Your task to perform on an android device: Open Youtube and go to the subscriptions tab Image 0: 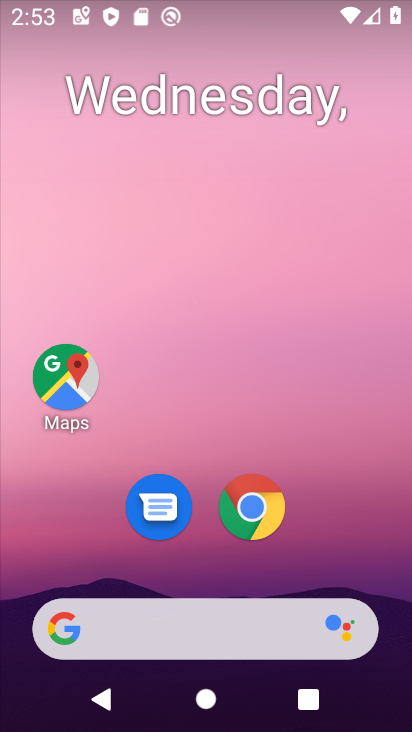
Step 0: drag from (344, 521) to (309, 218)
Your task to perform on an android device: Open Youtube and go to the subscriptions tab Image 1: 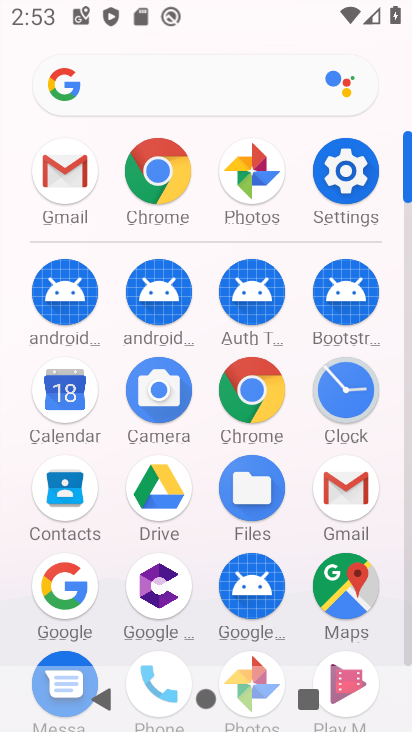
Step 1: drag from (303, 587) to (309, 123)
Your task to perform on an android device: Open Youtube and go to the subscriptions tab Image 2: 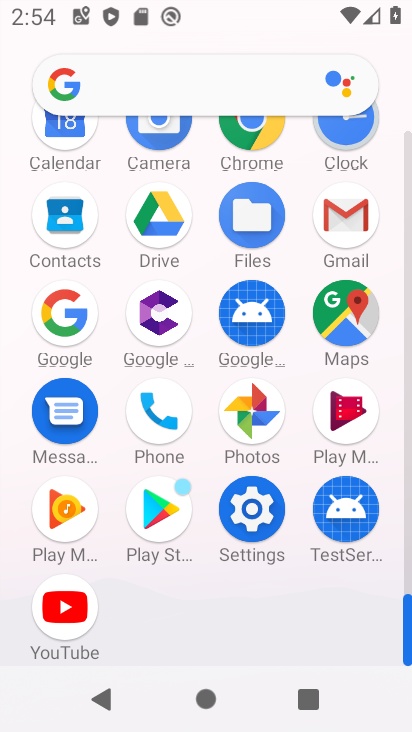
Step 2: click (68, 602)
Your task to perform on an android device: Open Youtube and go to the subscriptions tab Image 3: 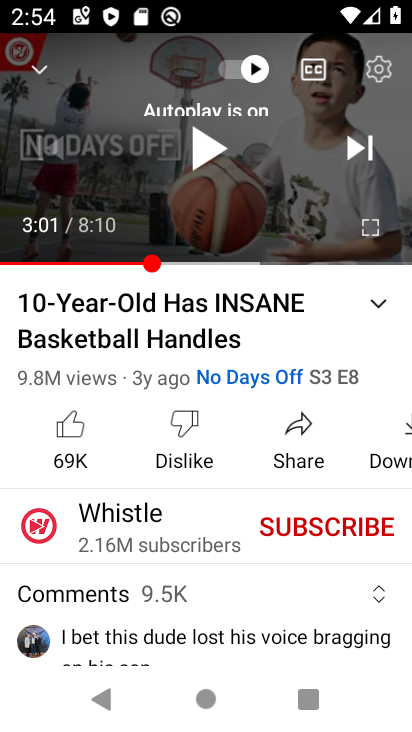
Step 3: press back button
Your task to perform on an android device: Open Youtube and go to the subscriptions tab Image 4: 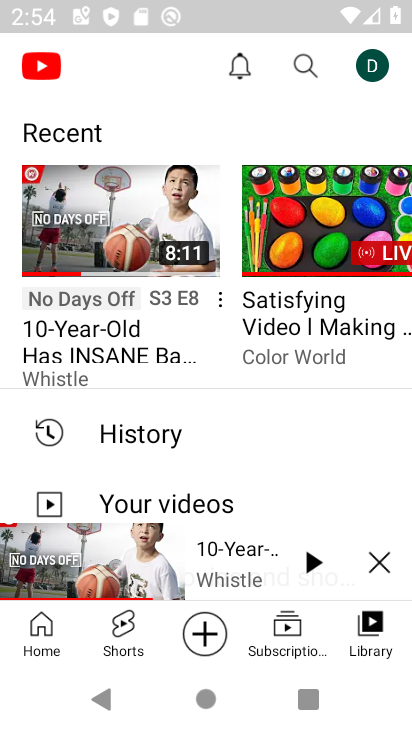
Step 4: click (284, 630)
Your task to perform on an android device: Open Youtube and go to the subscriptions tab Image 5: 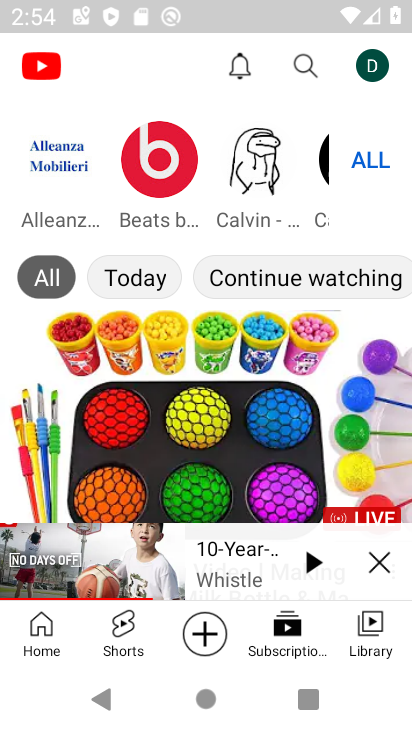
Step 5: task complete